Your task to perform on an android device: Open the Play Movies app and select the watchlist tab. Image 0: 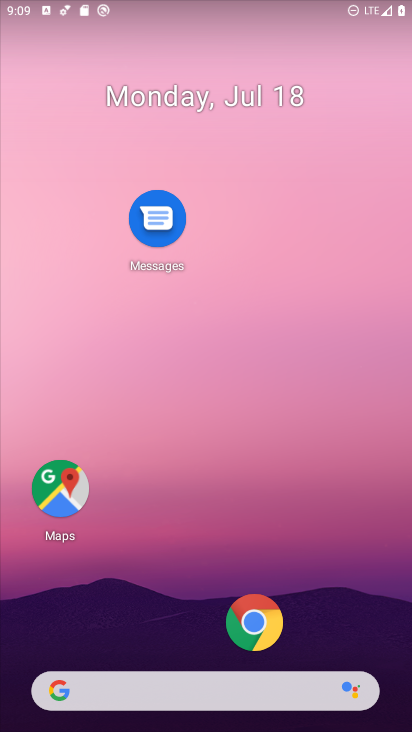
Step 0: drag from (233, 662) to (306, 66)
Your task to perform on an android device: Open the Play Movies app and select the watchlist tab. Image 1: 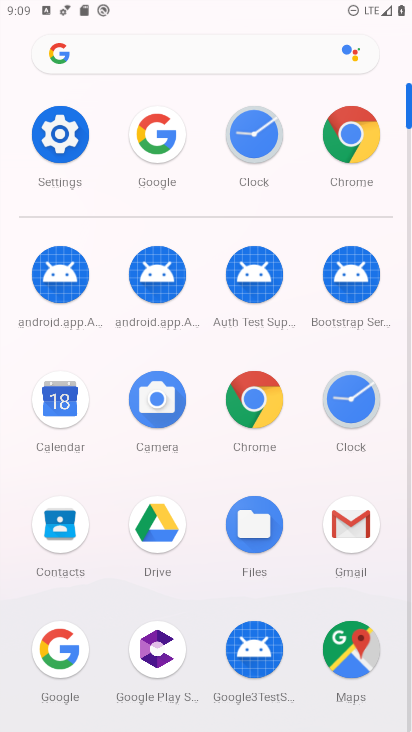
Step 1: drag from (294, 540) to (393, 40)
Your task to perform on an android device: Open the Play Movies app and select the watchlist tab. Image 2: 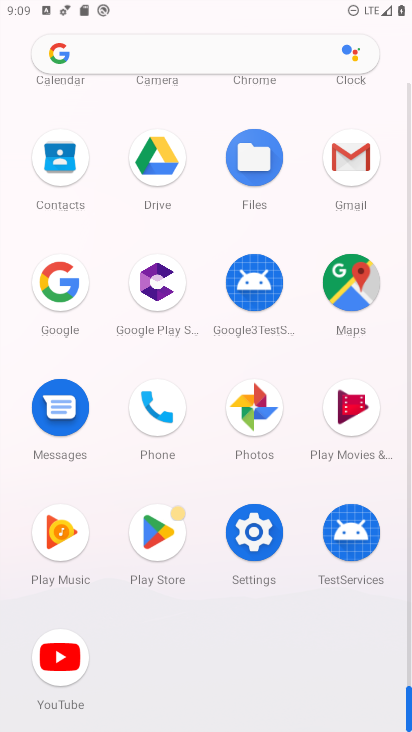
Step 2: click (362, 421)
Your task to perform on an android device: Open the Play Movies app and select the watchlist tab. Image 3: 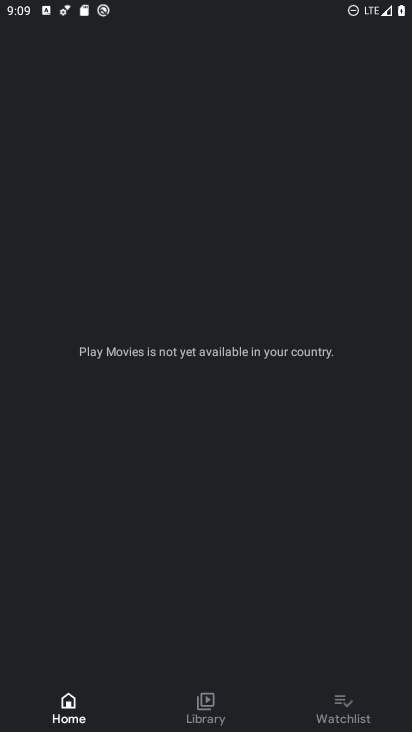
Step 3: click (341, 710)
Your task to perform on an android device: Open the Play Movies app and select the watchlist tab. Image 4: 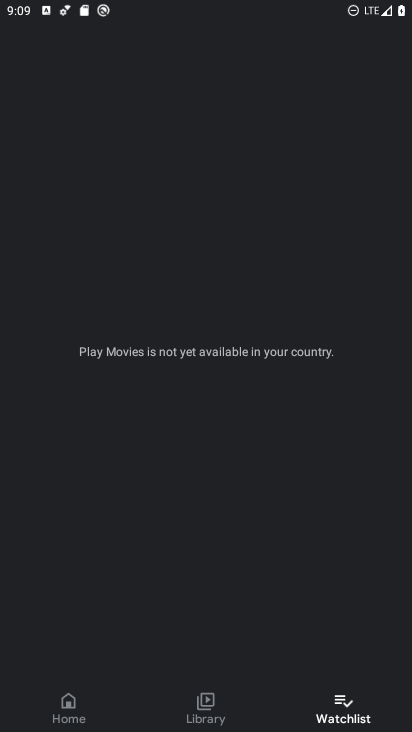
Step 4: task complete